Your task to perform on an android device: turn off javascript in the chrome app Image 0: 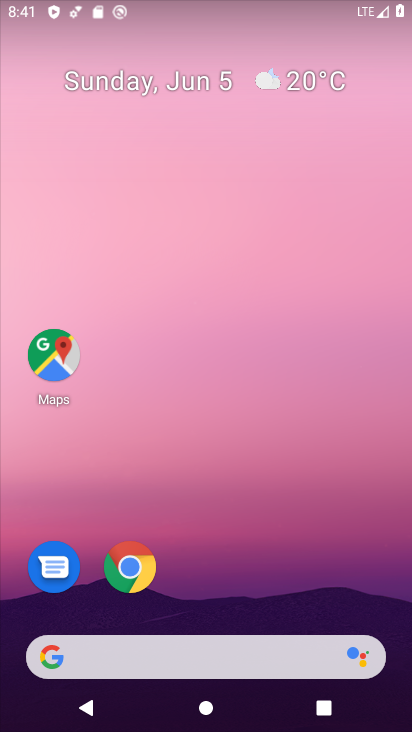
Step 0: drag from (251, 563) to (189, 93)
Your task to perform on an android device: turn off javascript in the chrome app Image 1: 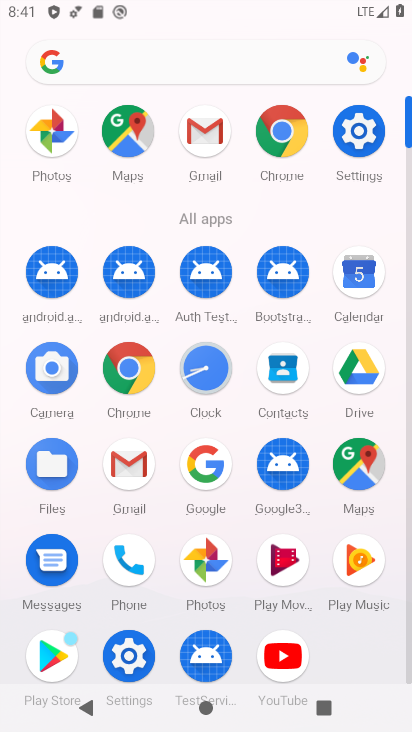
Step 1: click (283, 132)
Your task to perform on an android device: turn off javascript in the chrome app Image 2: 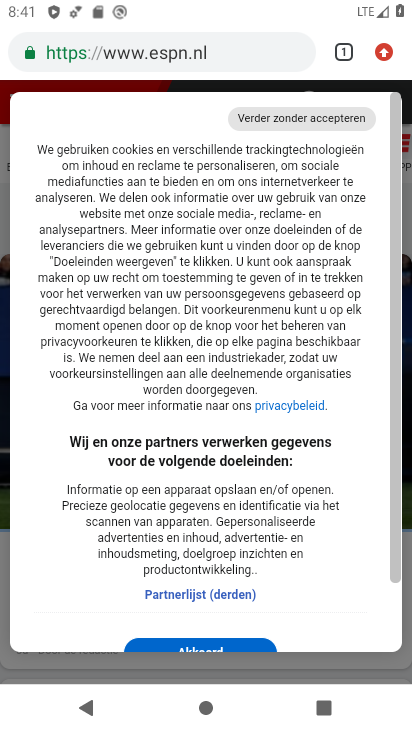
Step 2: click (384, 53)
Your task to perform on an android device: turn off javascript in the chrome app Image 3: 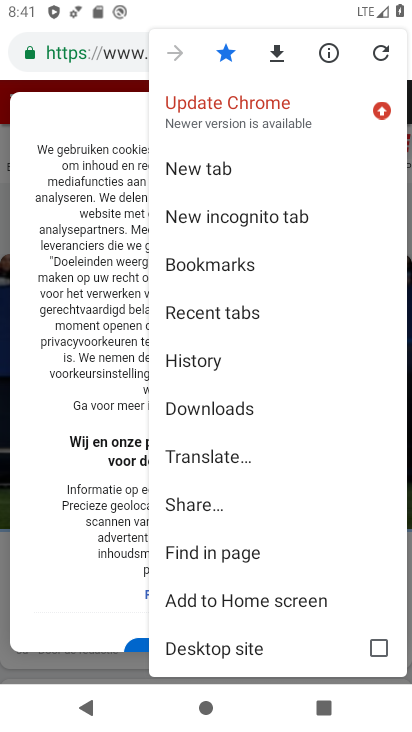
Step 3: drag from (228, 480) to (241, 386)
Your task to perform on an android device: turn off javascript in the chrome app Image 4: 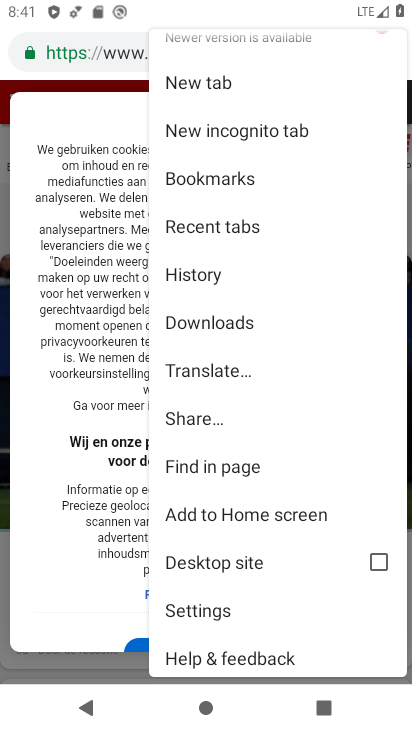
Step 4: click (201, 606)
Your task to perform on an android device: turn off javascript in the chrome app Image 5: 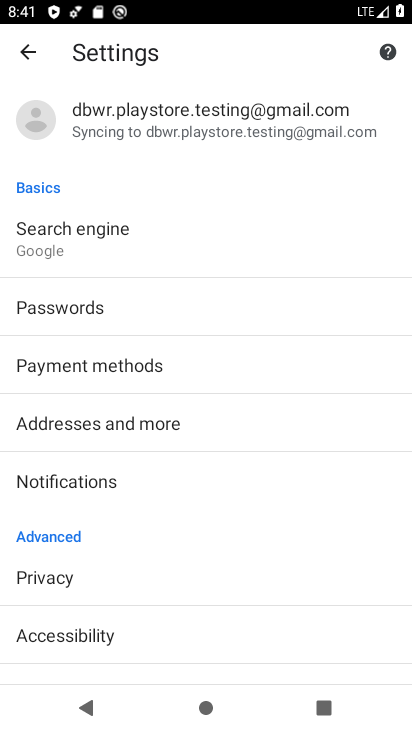
Step 5: drag from (145, 488) to (148, 388)
Your task to perform on an android device: turn off javascript in the chrome app Image 6: 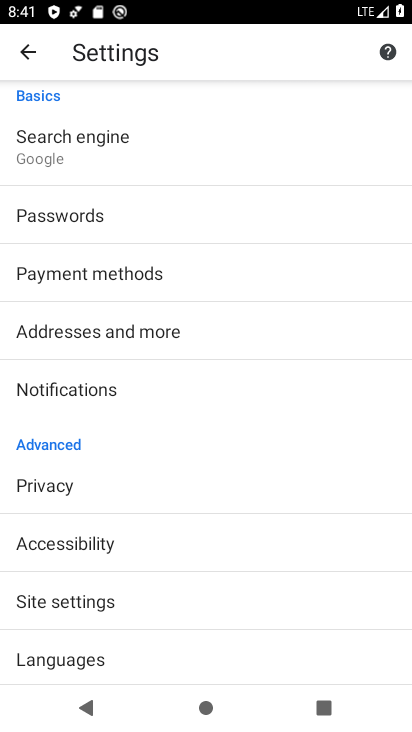
Step 6: drag from (139, 555) to (143, 447)
Your task to perform on an android device: turn off javascript in the chrome app Image 7: 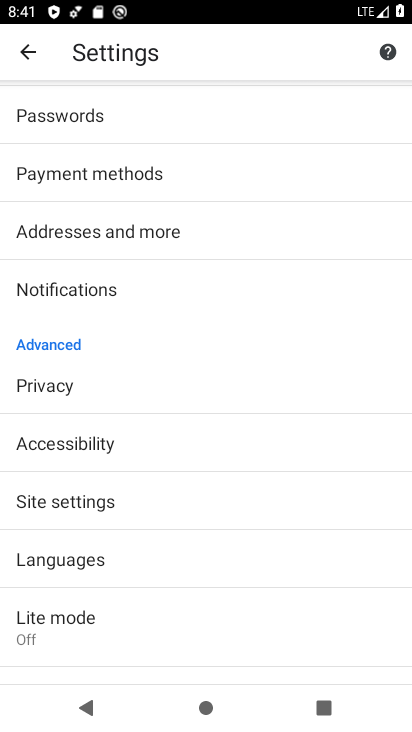
Step 7: click (94, 512)
Your task to perform on an android device: turn off javascript in the chrome app Image 8: 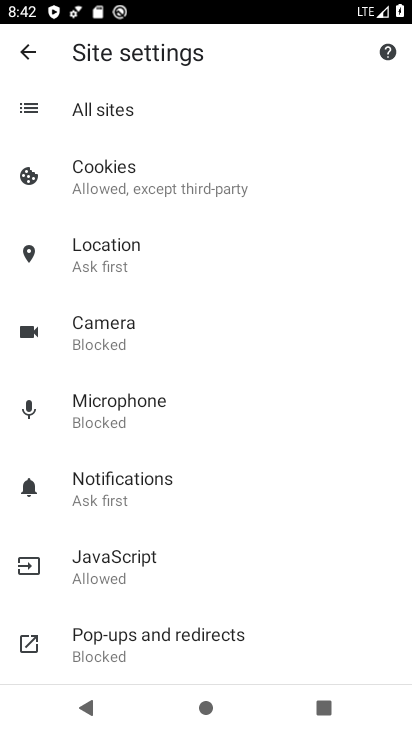
Step 8: click (119, 560)
Your task to perform on an android device: turn off javascript in the chrome app Image 9: 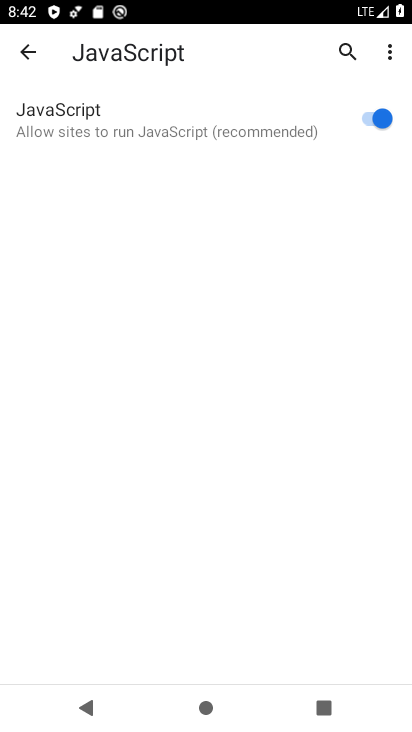
Step 9: click (371, 116)
Your task to perform on an android device: turn off javascript in the chrome app Image 10: 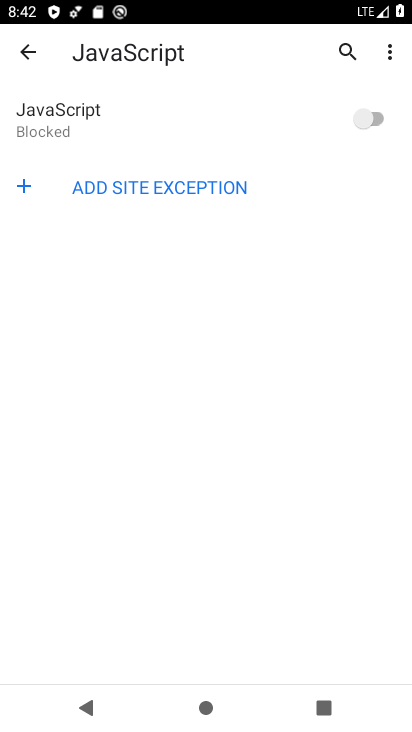
Step 10: task complete